Your task to perform on an android device: check data usage Image 0: 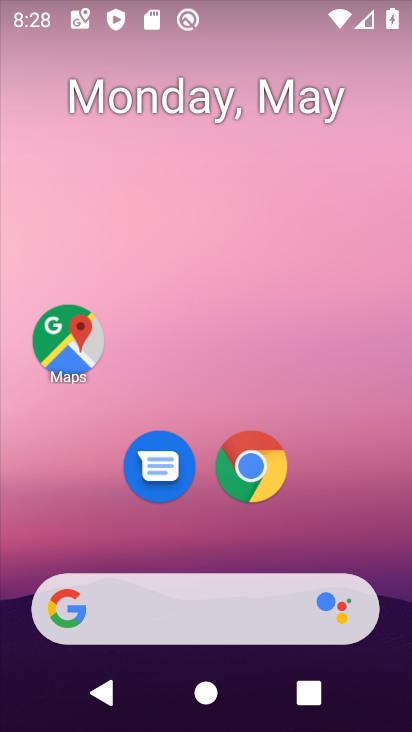
Step 0: press home button
Your task to perform on an android device: check data usage Image 1: 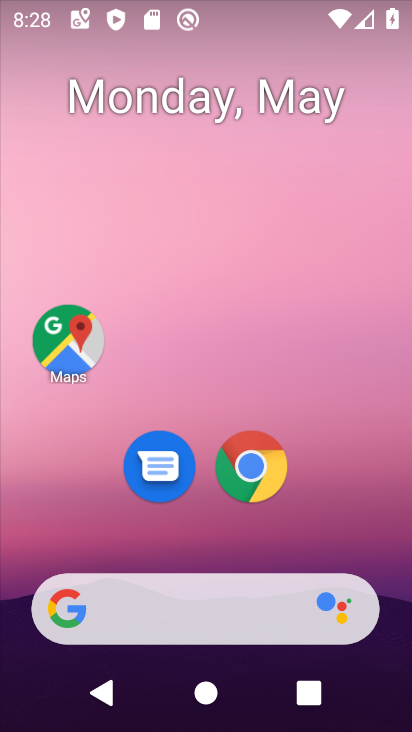
Step 1: drag from (254, 61) to (213, 1)
Your task to perform on an android device: check data usage Image 2: 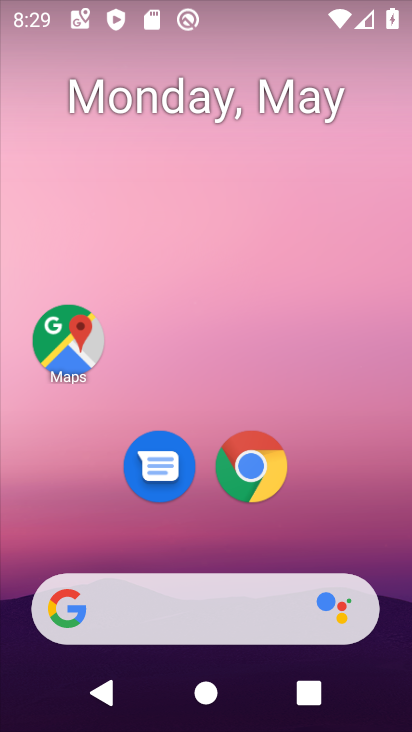
Step 2: drag from (313, 96) to (324, 32)
Your task to perform on an android device: check data usage Image 3: 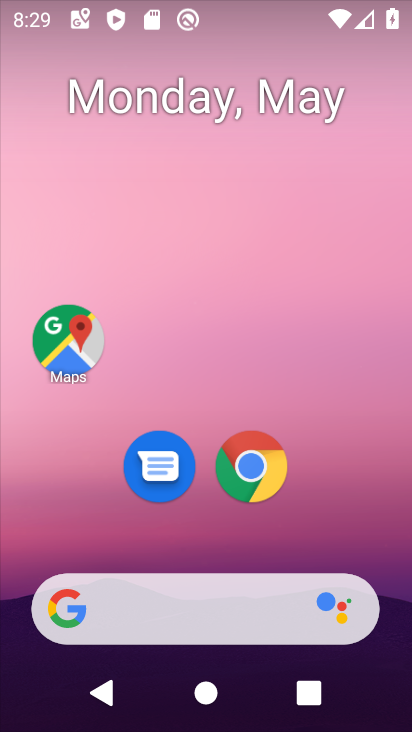
Step 3: drag from (223, 254) to (234, 58)
Your task to perform on an android device: check data usage Image 4: 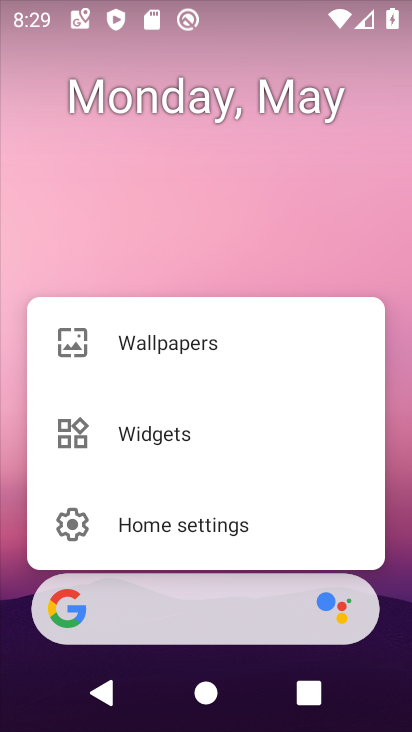
Step 4: click (164, 201)
Your task to perform on an android device: check data usage Image 5: 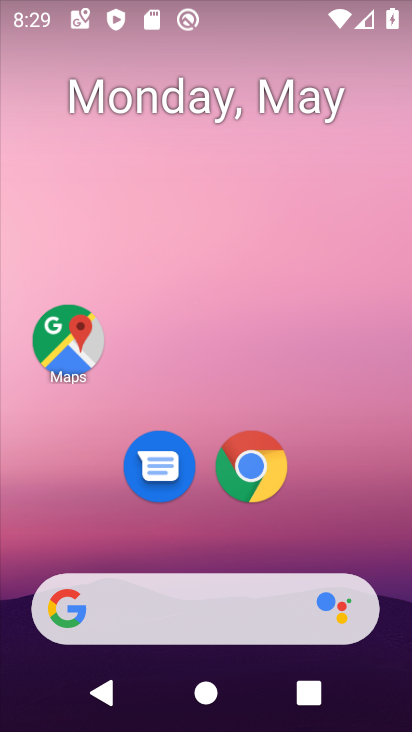
Step 5: drag from (231, 653) to (382, 0)
Your task to perform on an android device: check data usage Image 6: 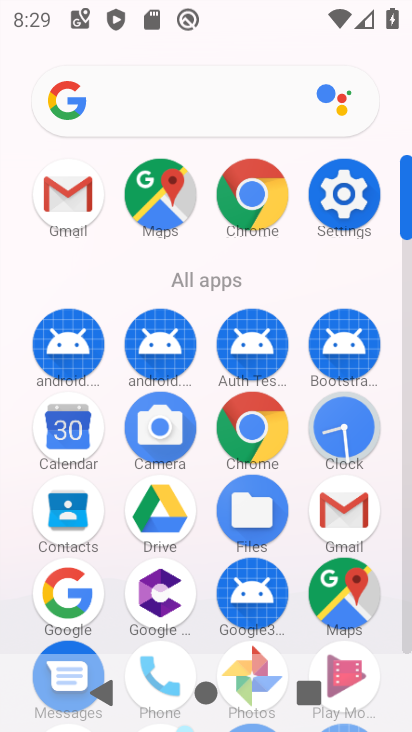
Step 6: click (352, 194)
Your task to perform on an android device: check data usage Image 7: 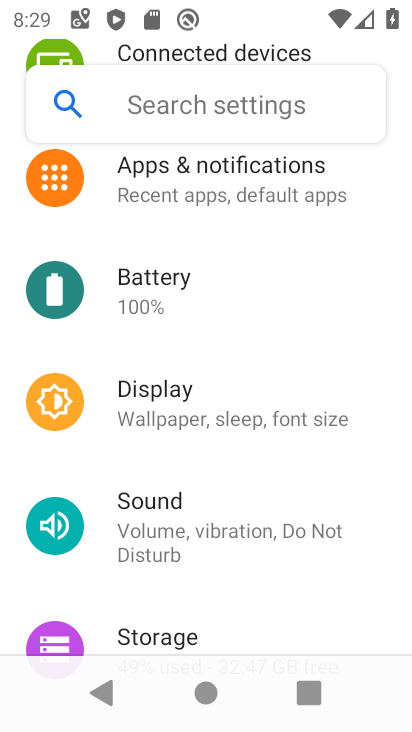
Step 7: click (194, 114)
Your task to perform on an android device: check data usage Image 8: 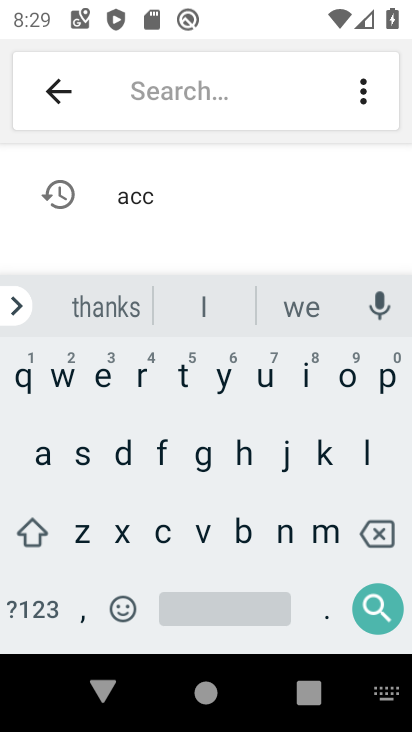
Step 8: click (117, 451)
Your task to perform on an android device: check data usage Image 9: 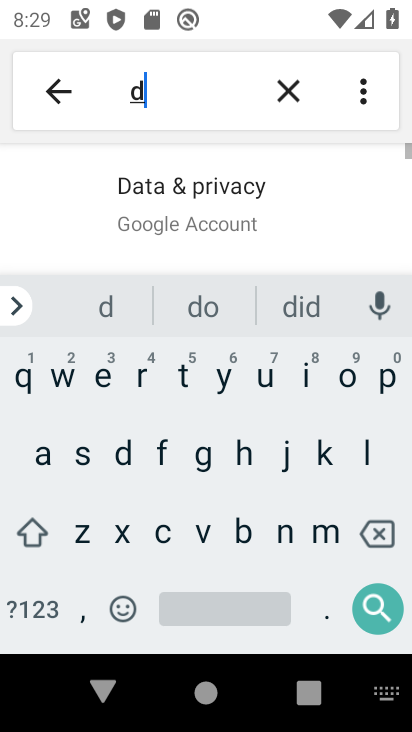
Step 9: click (44, 451)
Your task to perform on an android device: check data usage Image 10: 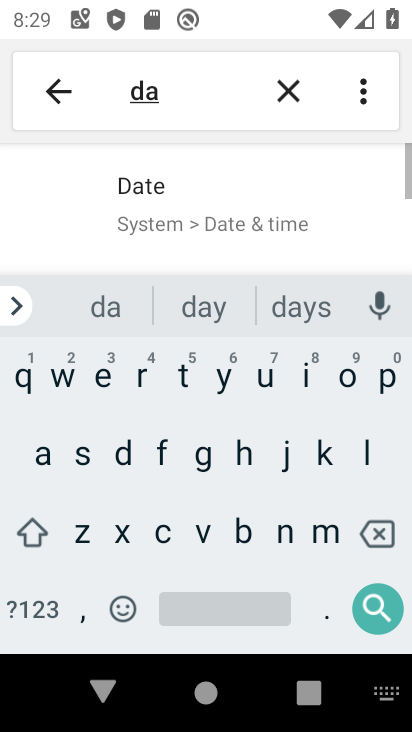
Step 10: click (184, 375)
Your task to perform on an android device: check data usage Image 11: 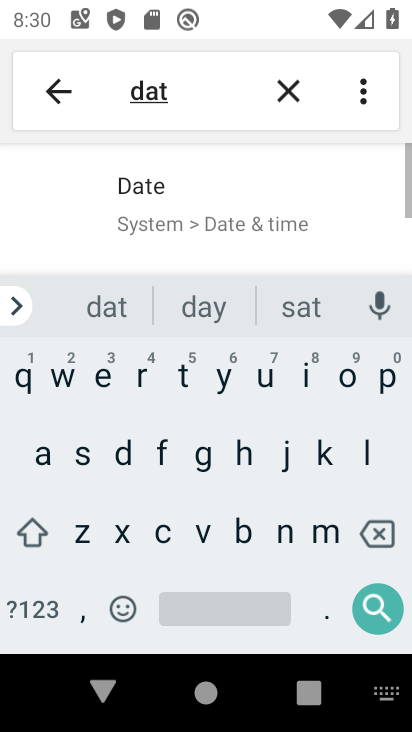
Step 11: click (35, 446)
Your task to perform on an android device: check data usage Image 12: 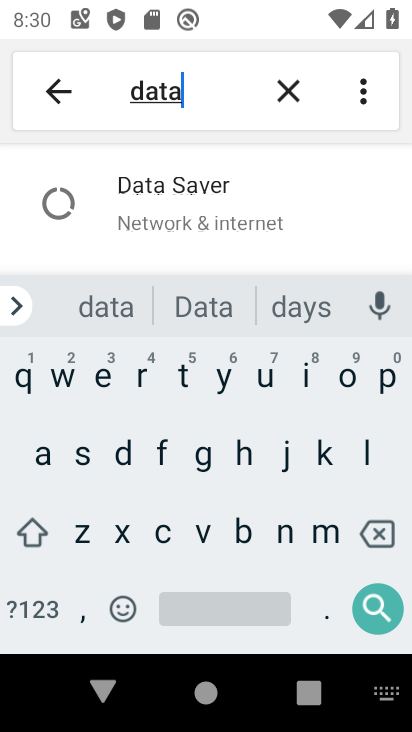
Step 12: click (207, 599)
Your task to perform on an android device: check data usage Image 13: 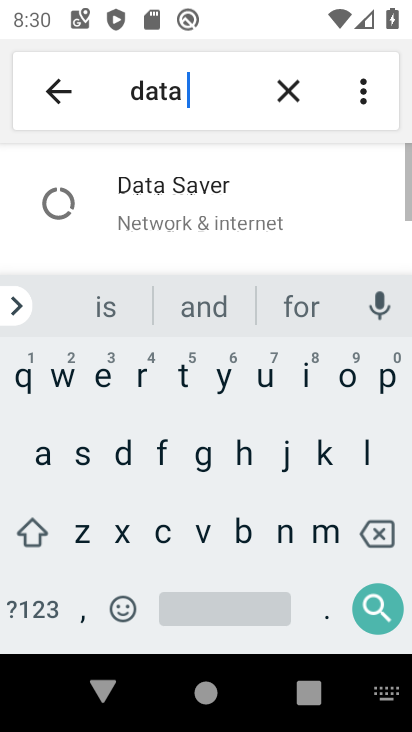
Step 13: click (264, 378)
Your task to perform on an android device: check data usage Image 14: 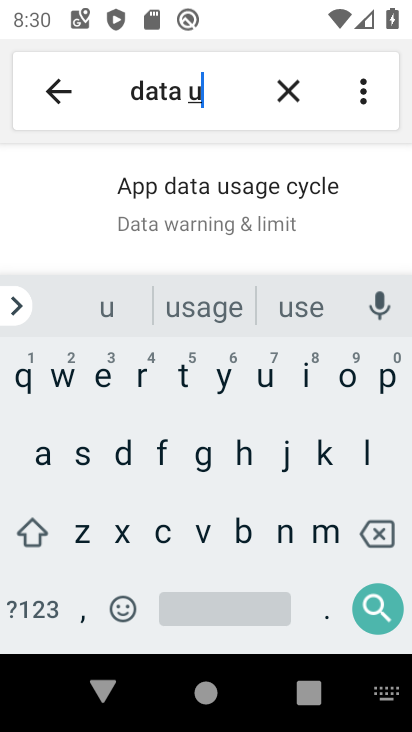
Step 14: press back button
Your task to perform on an android device: check data usage Image 15: 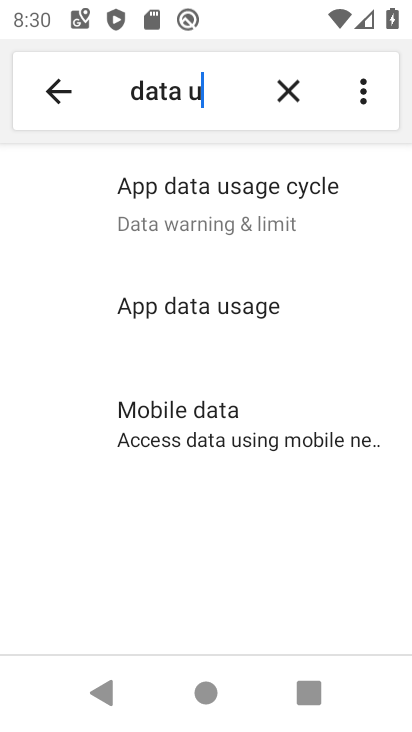
Step 15: click (178, 309)
Your task to perform on an android device: check data usage Image 16: 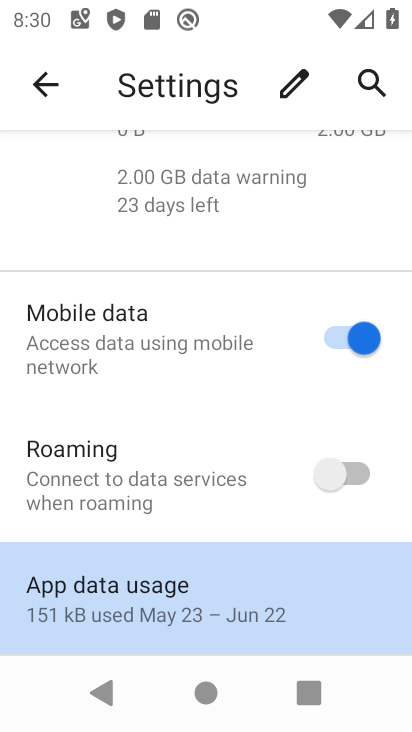
Step 16: click (103, 602)
Your task to perform on an android device: check data usage Image 17: 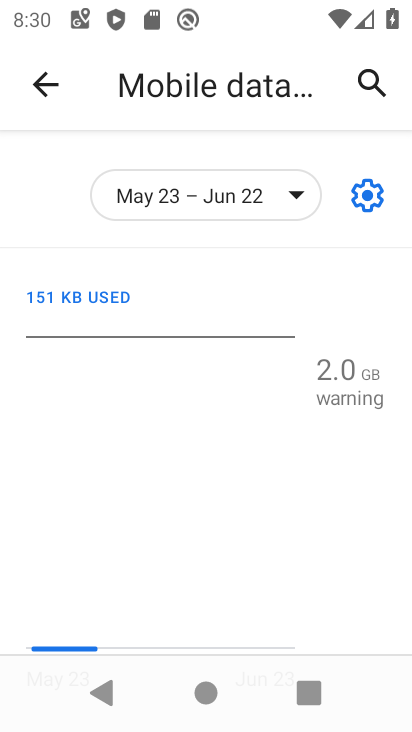
Step 17: task complete